Your task to perform on an android device: Go to display settings Image 0: 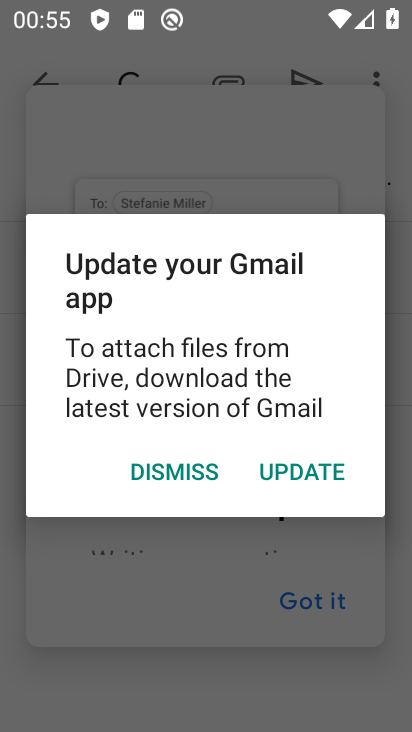
Step 0: press home button
Your task to perform on an android device: Go to display settings Image 1: 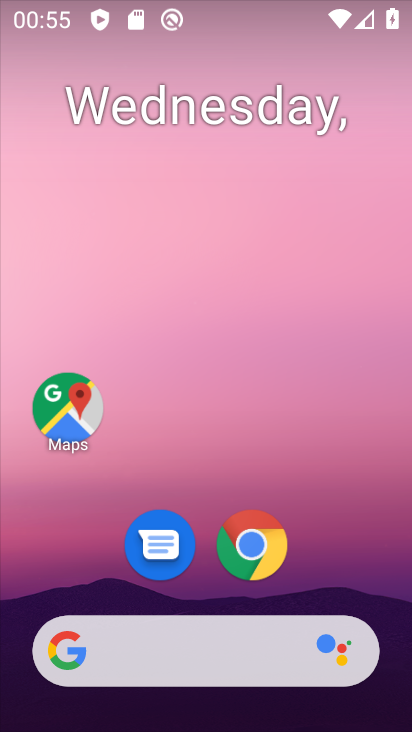
Step 1: drag from (293, 554) to (266, 116)
Your task to perform on an android device: Go to display settings Image 2: 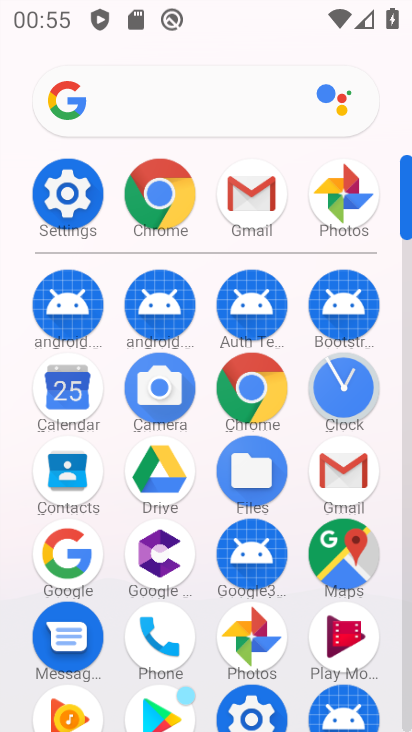
Step 2: click (57, 202)
Your task to perform on an android device: Go to display settings Image 3: 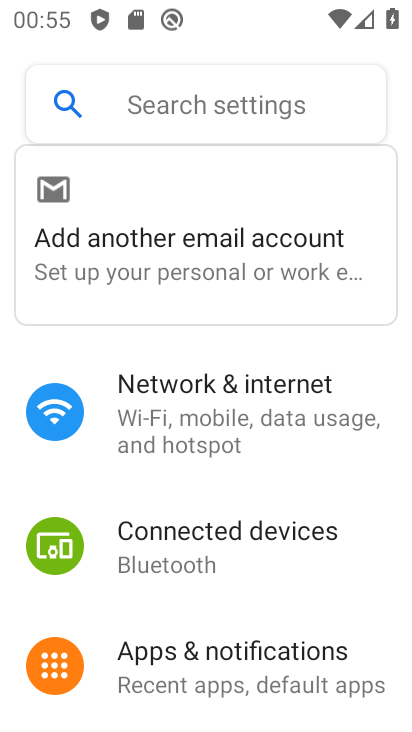
Step 3: drag from (246, 636) to (255, 202)
Your task to perform on an android device: Go to display settings Image 4: 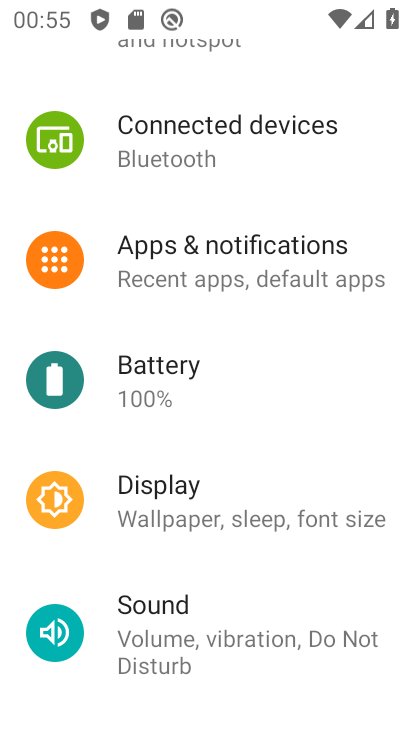
Step 4: click (197, 498)
Your task to perform on an android device: Go to display settings Image 5: 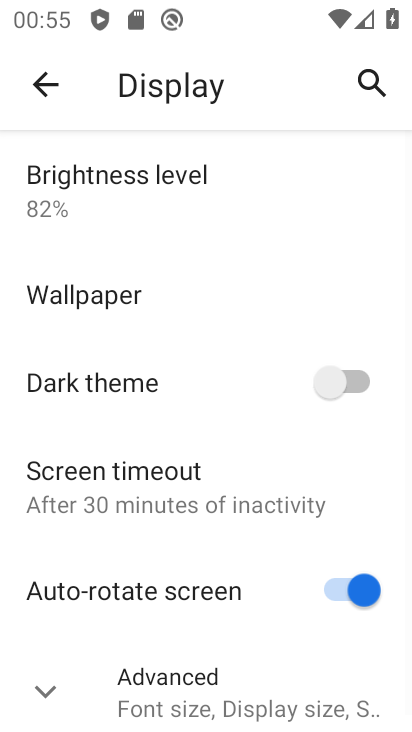
Step 5: task complete